Your task to perform on an android device: Open Google Image 0: 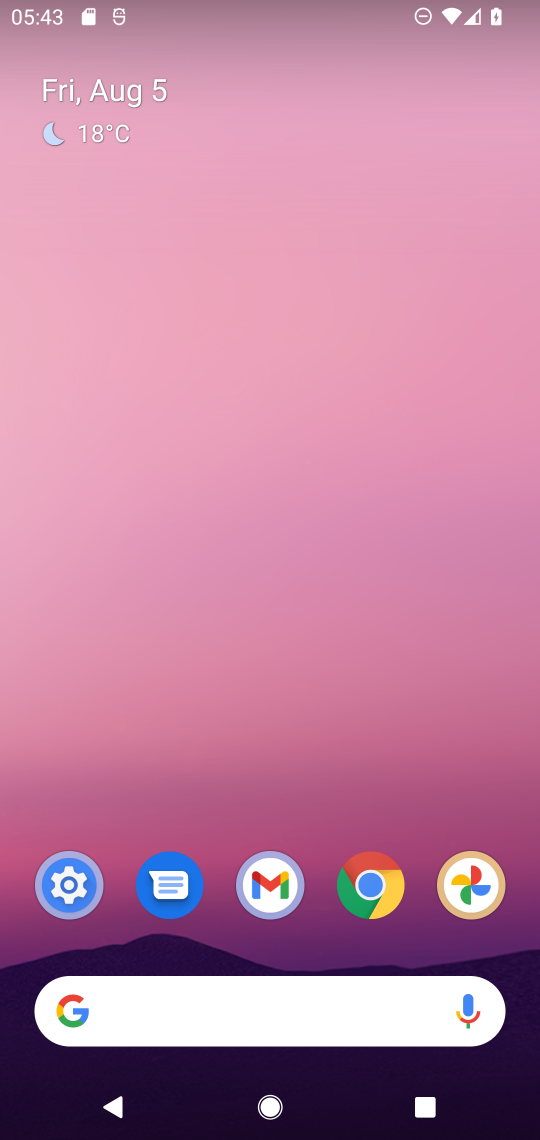
Step 0: drag from (324, 879) to (328, 110)
Your task to perform on an android device: Open Google Image 1: 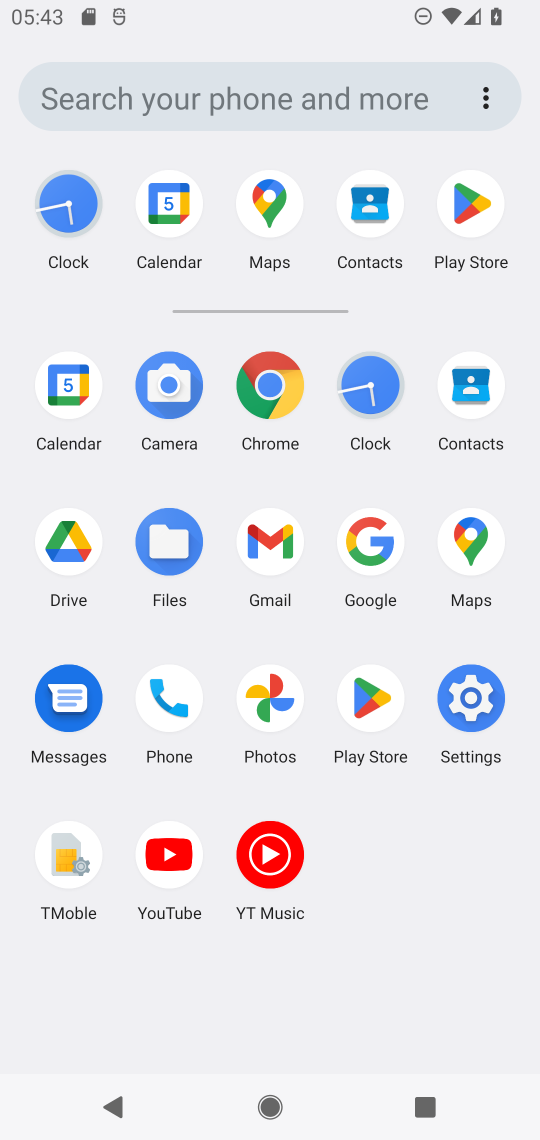
Step 1: click (377, 557)
Your task to perform on an android device: Open Google Image 2: 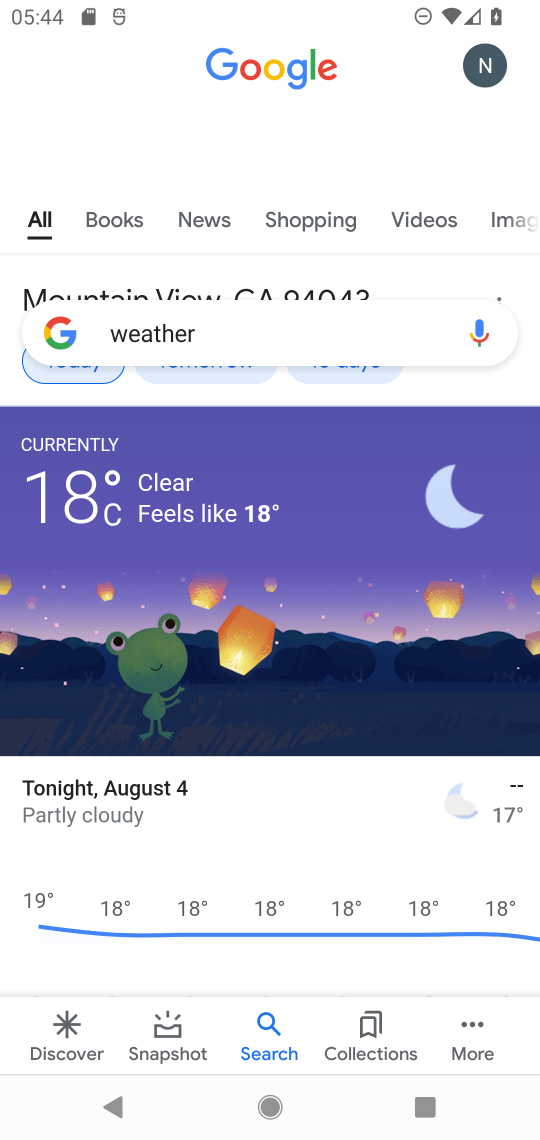
Step 2: task complete